Your task to perform on an android device: Go to Google Image 0: 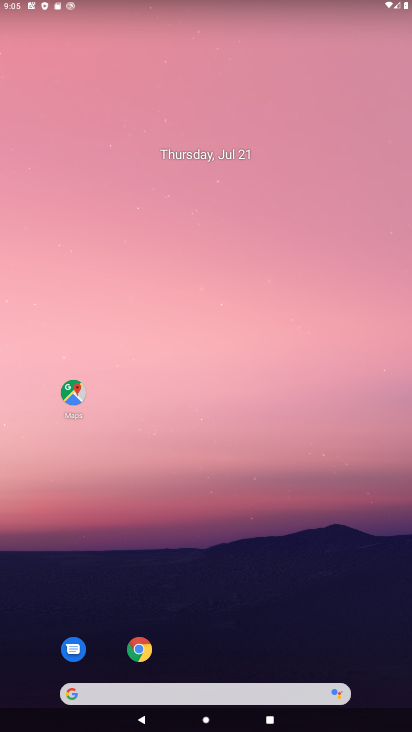
Step 0: click (94, 692)
Your task to perform on an android device: Go to Google Image 1: 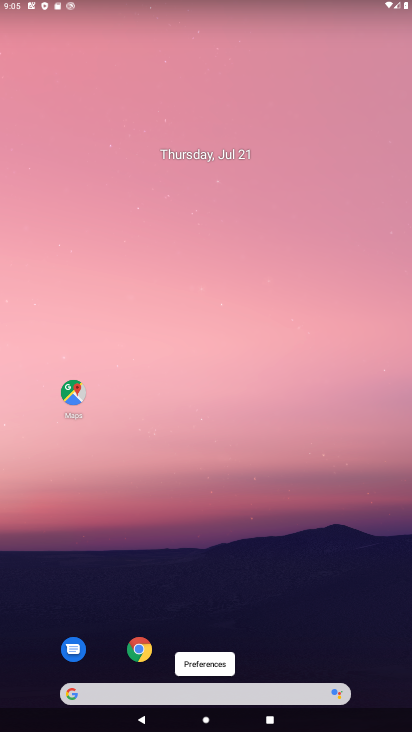
Step 1: click (67, 690)
Your task to perform on an android device: Go to Google Image 2: 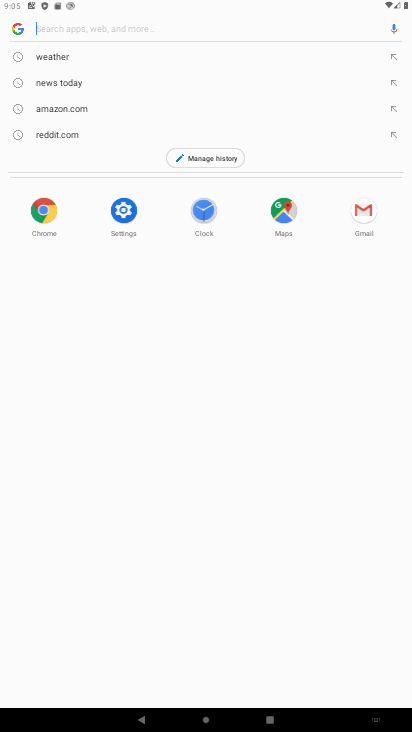
Step 2: click (17, 26)
Your task to perform on an android device: Go to Google Image 3: 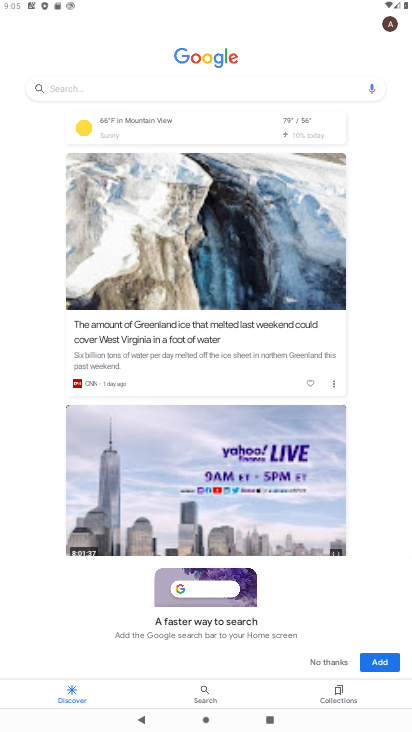
Step 3: task complete